Your task to perform on an android device: toggle wifi Image 0: 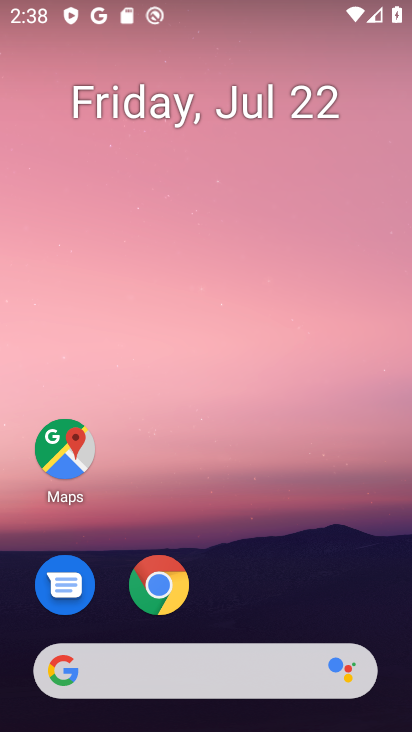
Step 0: drag from (295, 539) to (319, 48)
Your task to perform on an android device: toggle wifi Image 1: 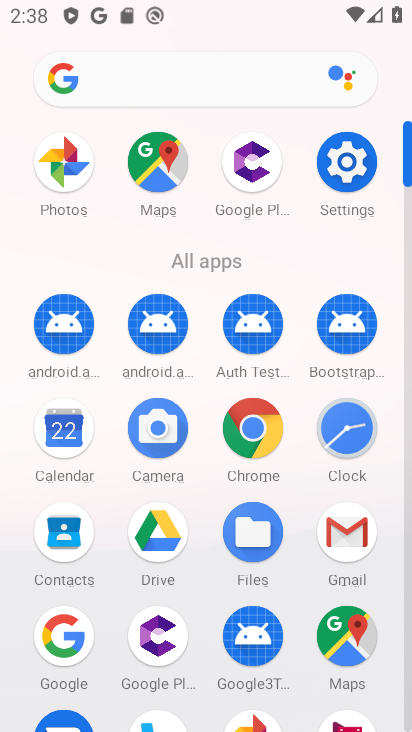
Step 1: click (342, 162)
Your task to perform on an android device: toggle wifi Image 2: 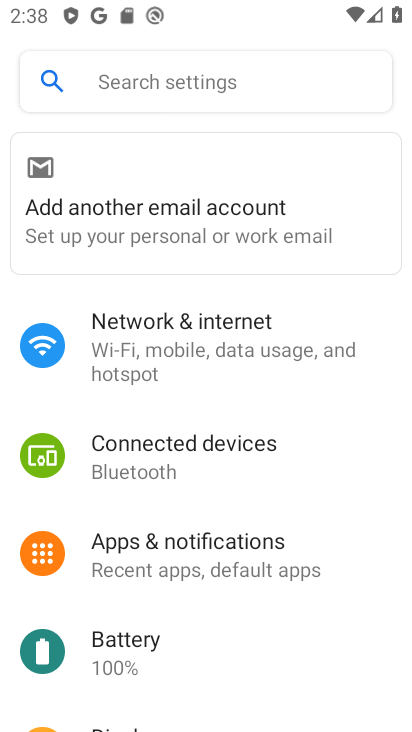
Step 2: click (196, 336)
Your task to perform on an android device: toggle wifi Image 3: 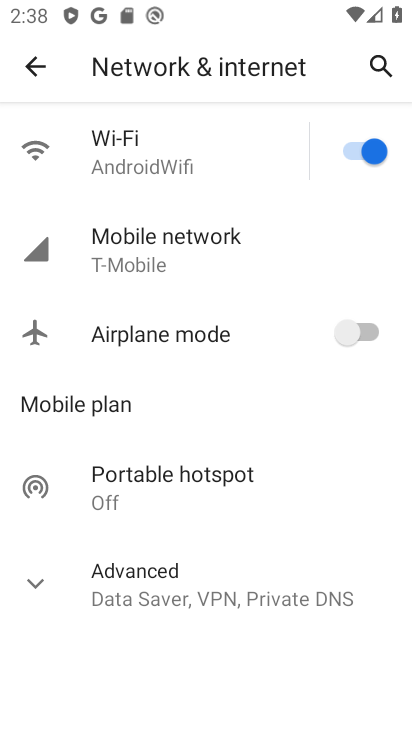
Step 3: click (360, 151)
Your task to perform on an android device: toggle wifi Image 4: 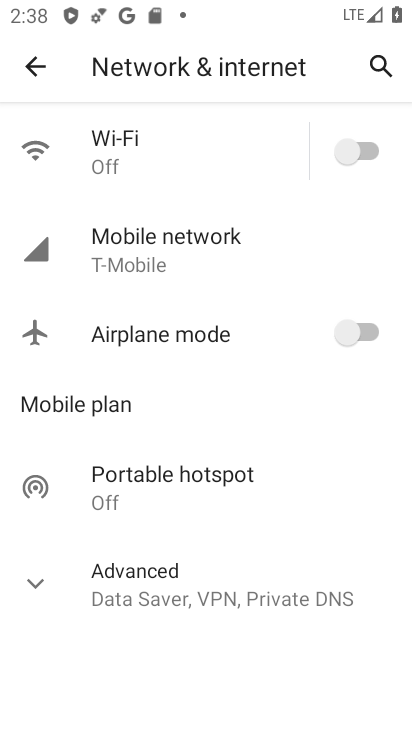
Step 4: task complete